Your task to perform on an android device: Go to Yahoo.com Image 0: 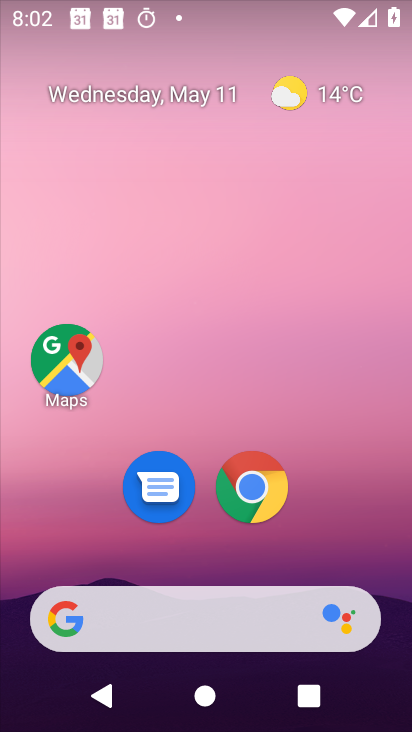
Step 0: click (248, 485)
Your task to perform on an android device: Go to Yahoo.com Image 1: 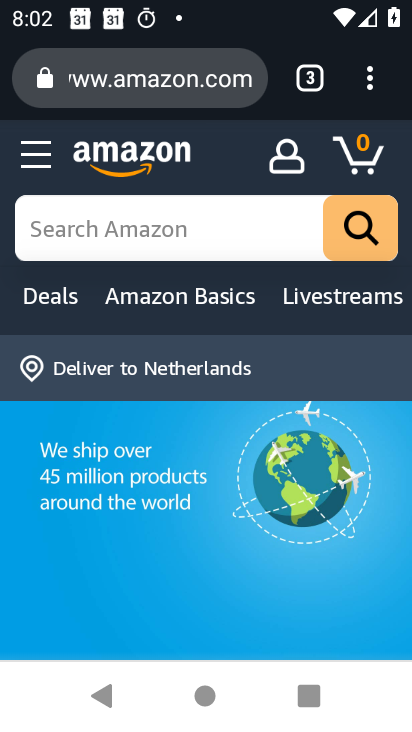
Step 1: click (373, 90)
Your task to perform on an android device: Go to Yahoo.com Image 2: 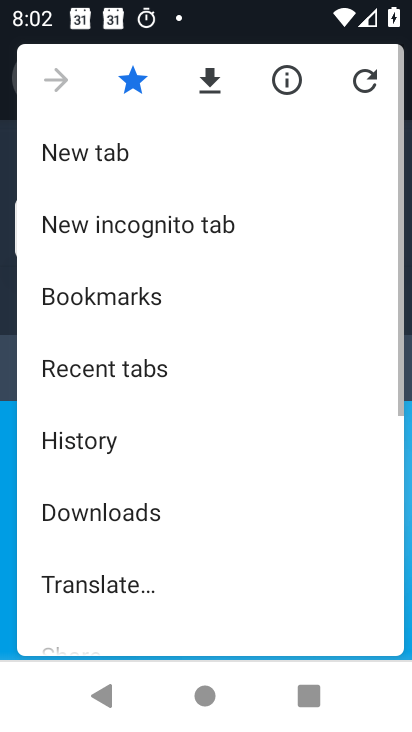
Step 2: click (70, 160)
Your task to perform on an android device: Go to Yahoo.com Image 3: 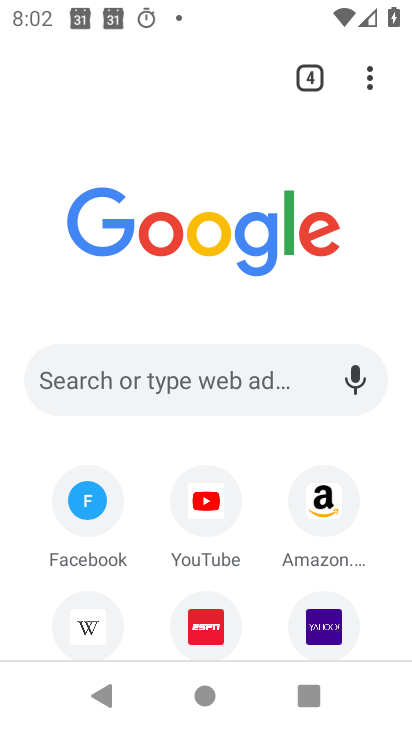
Step 3: click (186, 375)
Your task to perform on an android device: Go to Yahoo.com Image 4: 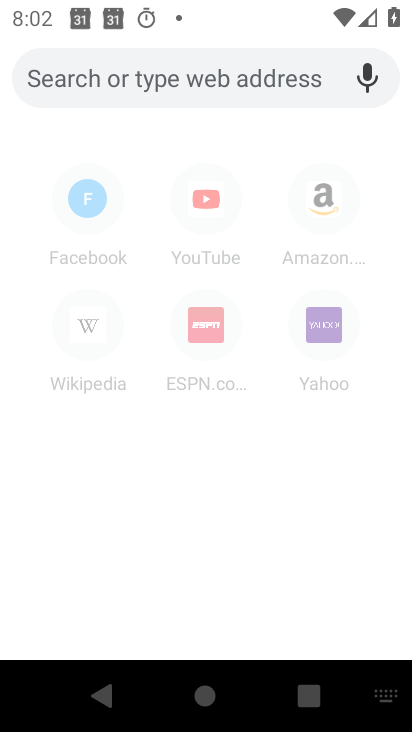
Step 4: type "Yahoo.com"
Your task to perform on an android device: Go to Yahoo.com Image 5: 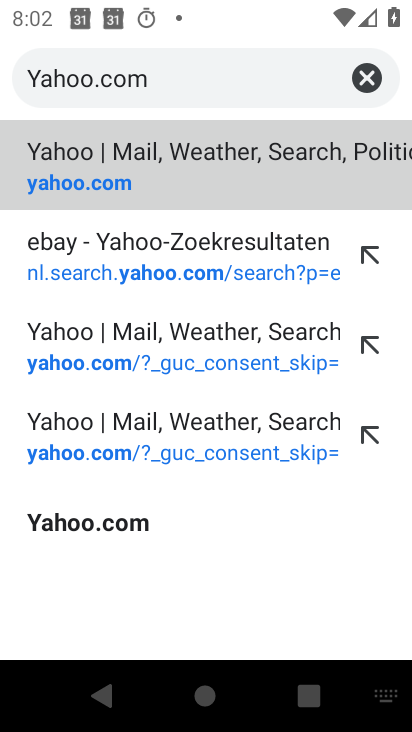
Step 5: click (230, 155)
Your task to perform on an android device: Go to Yahoo.com Image 6: 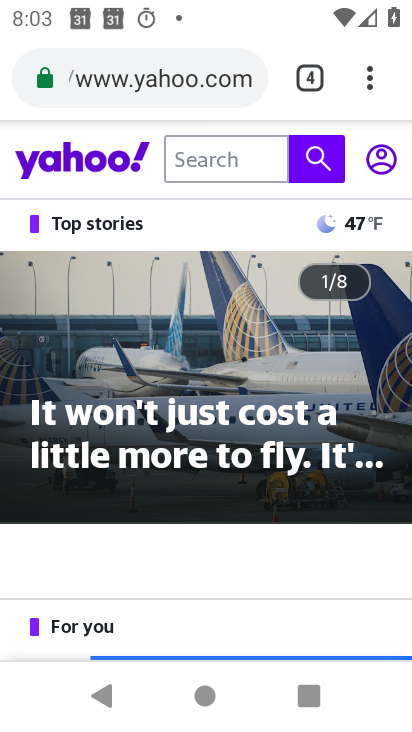
Step 6: task complete